Your task to perform on an android device: change the upload size in google photos Image 0: 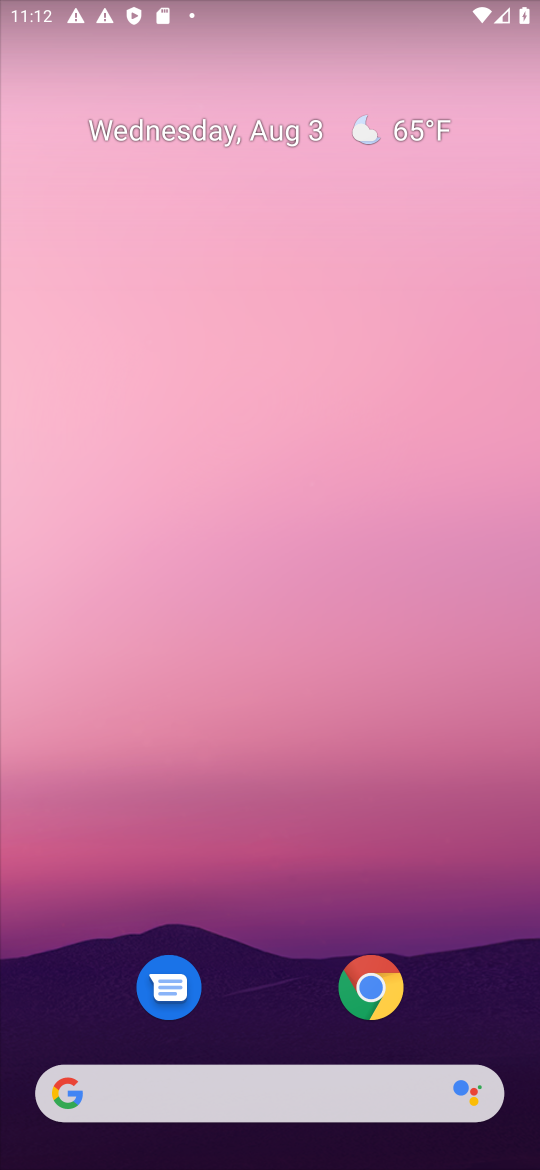
Step 0: drag from (228, 1072) to (234, 188)
Your task to perform on an android device: change the upload size in google photos Image 1: 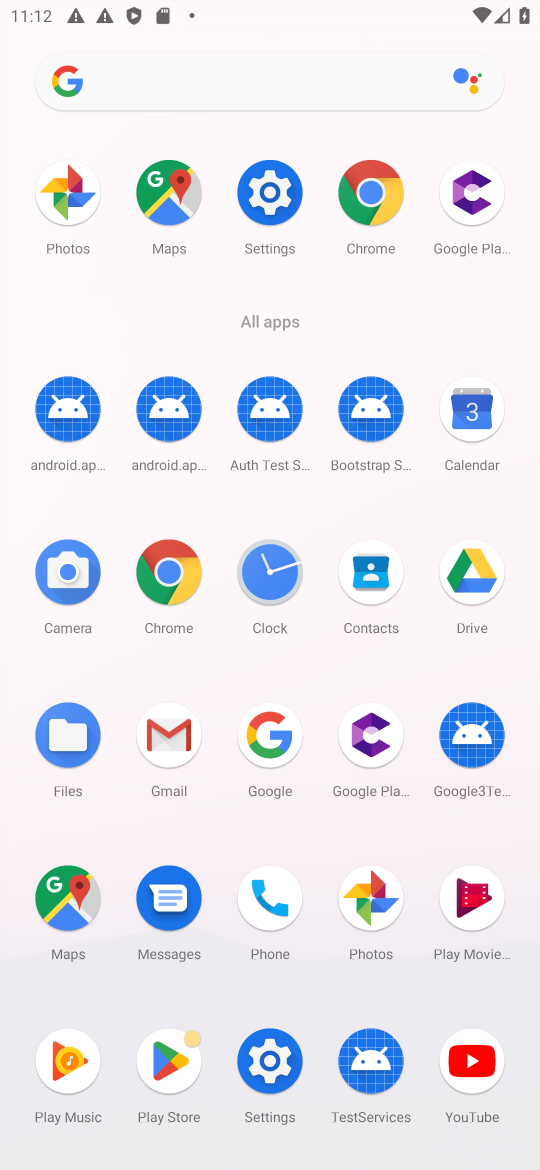
Step 1: click (368, 903)
Your task to perform on an android device: change the upload size in google photos Image 2: 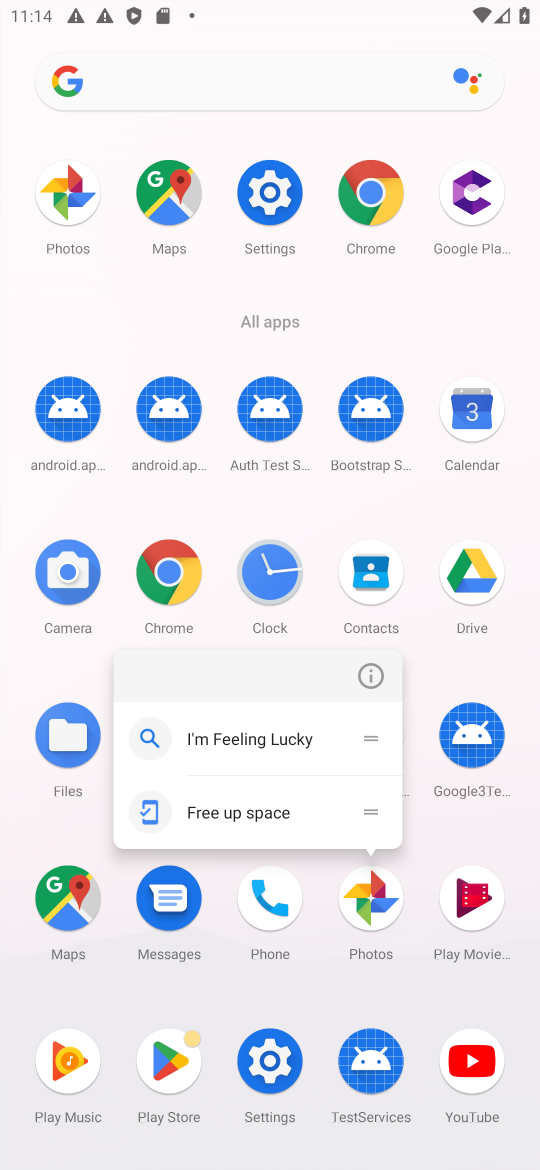
Step 2: click (370, 892)
Your task to perform on an android device: change the upload size in google photos Image 3: 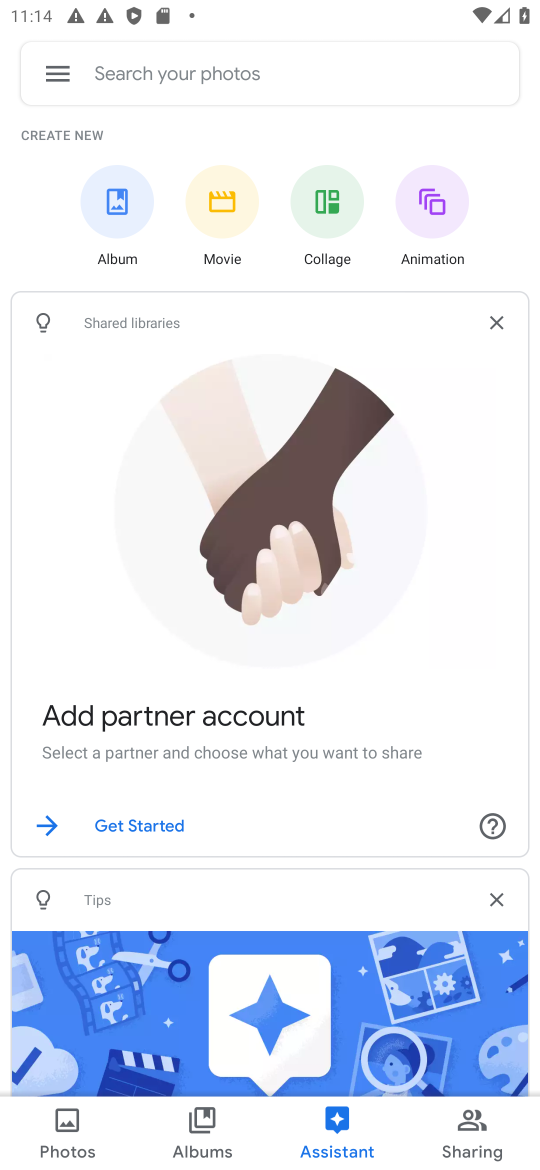
Step 3: click (62, 72)
Your task to perform on an android device: change the upload size in google photos Image 4: 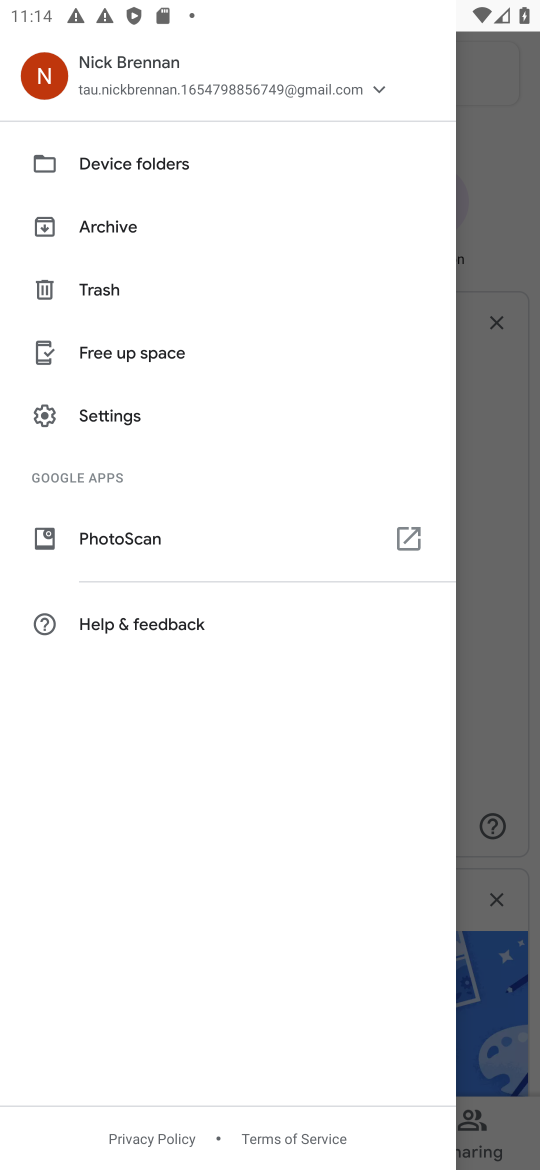
Step 4: click (81, 428)
Your task to perform on an android device: change the upload size in google photos Image 5: 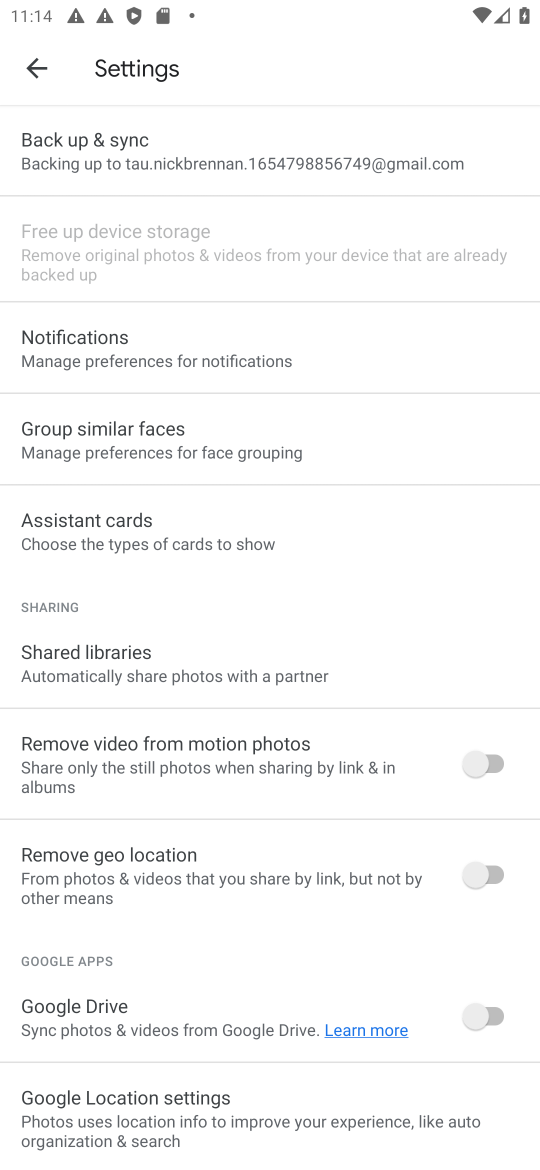
Step 5: click (175, 160)
Your task to perform on an android device: change the upload size in google photos Image 6: 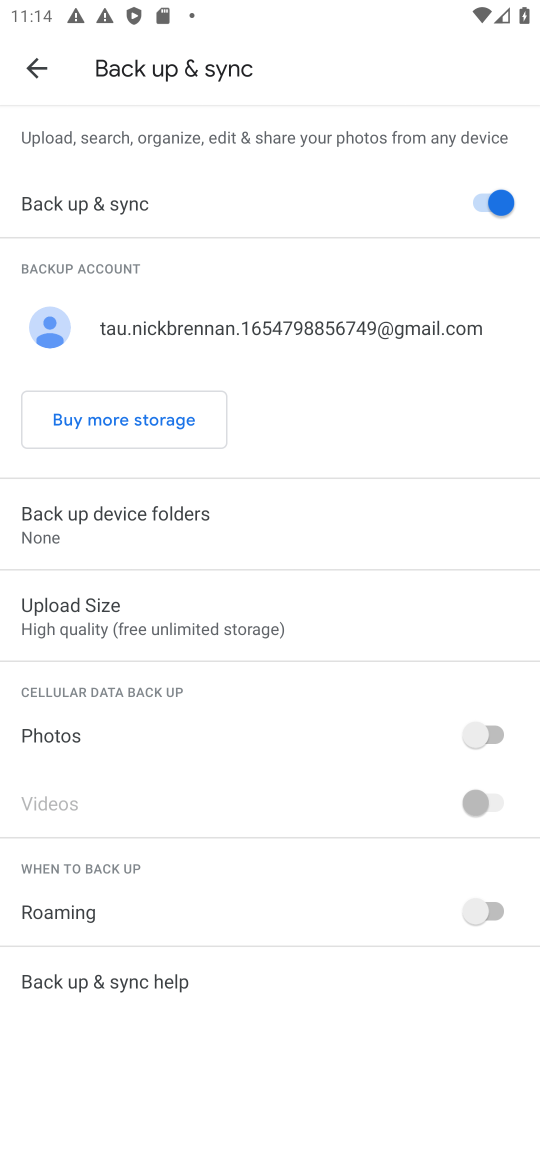
Step 6: click (137, 633)
Your task to perform on an android device: change the upload size in google photos Image 7: 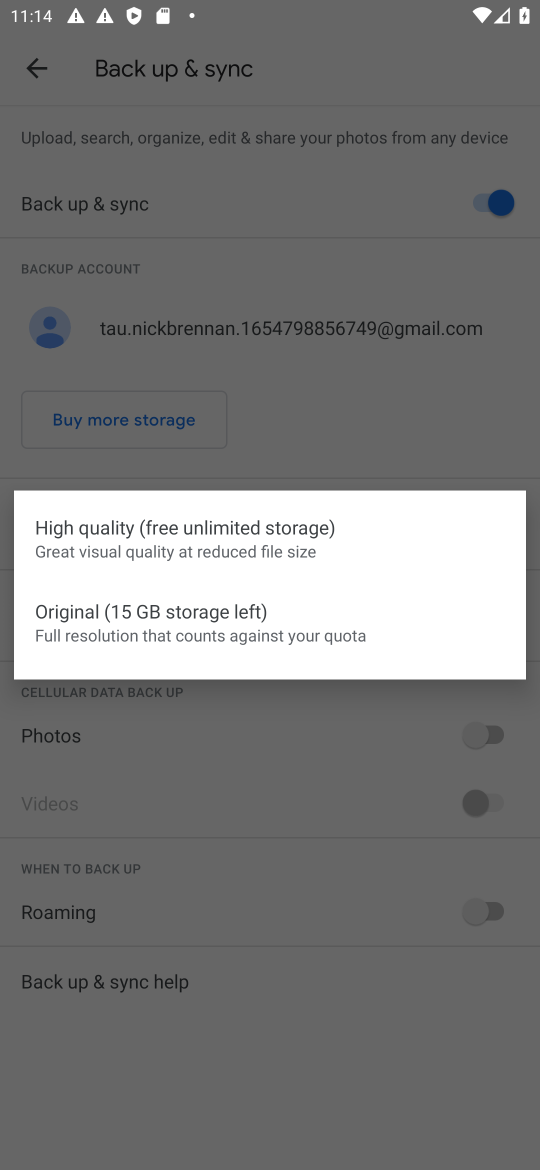
Step 7: click (55, 620)
Your task to perform on an android device: change the upload size in google photos Image 8: 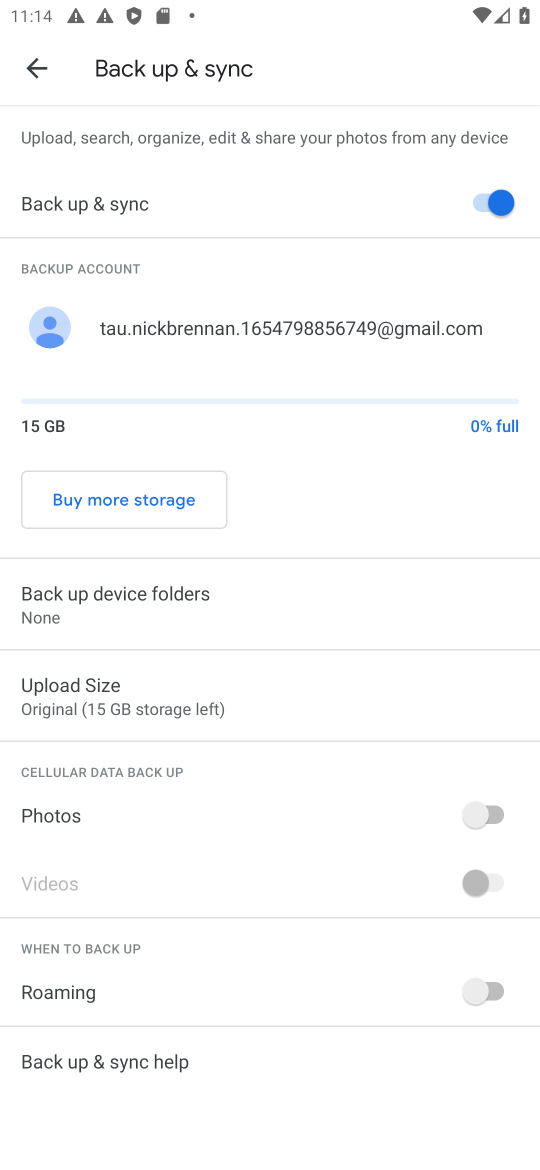
Step 8: task complete